Your task to perform on an android device: find which apps use the phone's location Image 0: 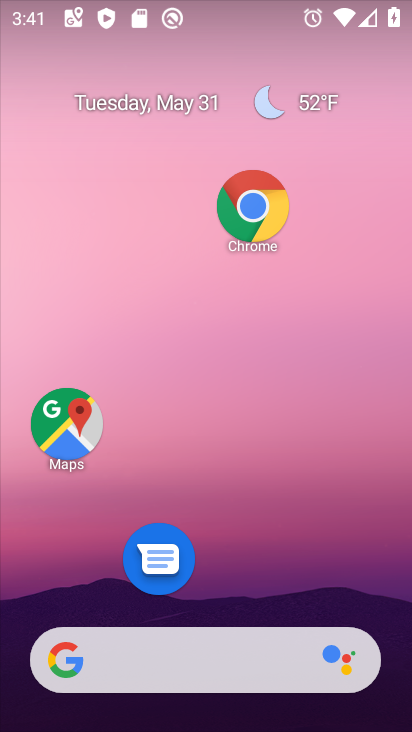
Step 0: drag from (227, 580) to (172, 83)
Your task to perform on an android device: find which apps use the phone's location Image 1: 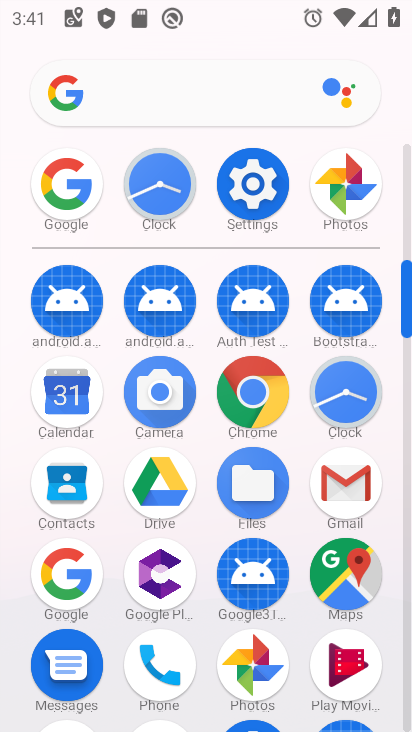
Step 1: click (247, 174)
Your task to perform on an android device: find which apps use the phone's location Image 2: 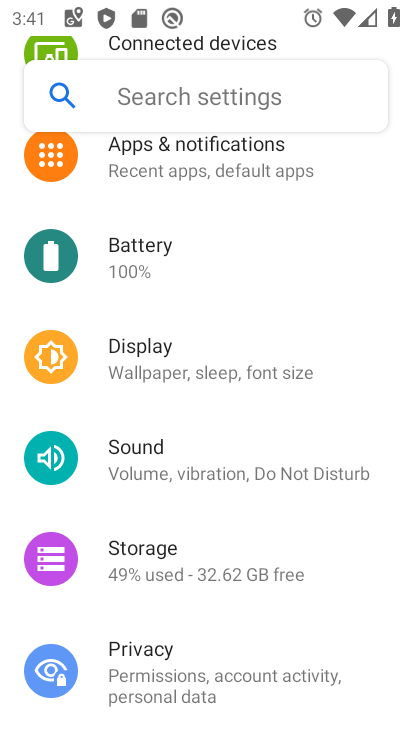
Step 2: drag from (197, 630) to (246, 281)
Your task to perform on an android device: find which apps use the phone's location Image 3: 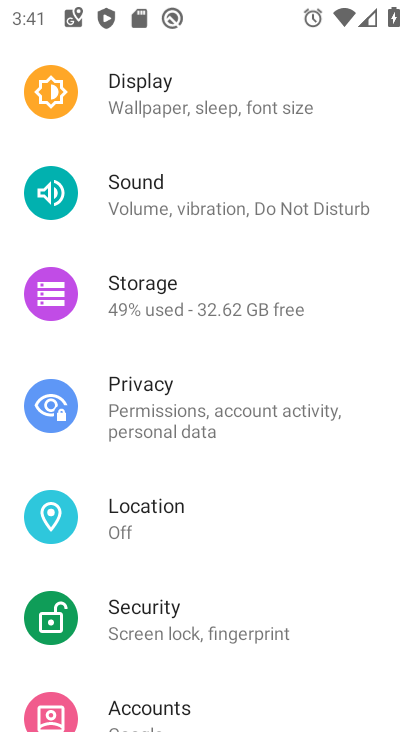
Step 3: click (198, 502)
Your task to perform on an android device: find which apps use the phone's location Image 4: 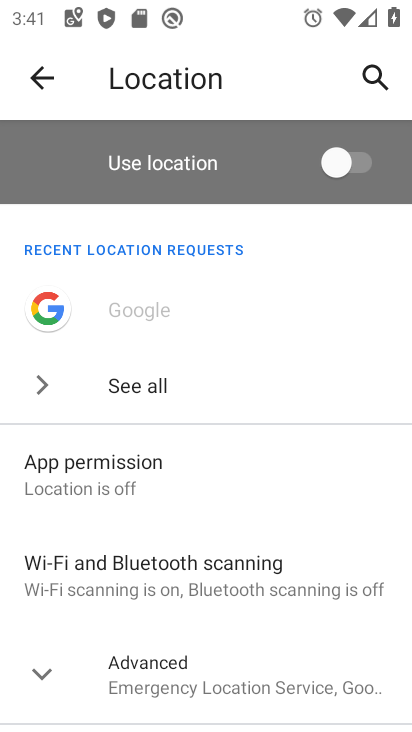
Step 4: drag from (191, 568) to (245, 320)
Your task to perform on an android device: find which apps use the phone's location Image 5: 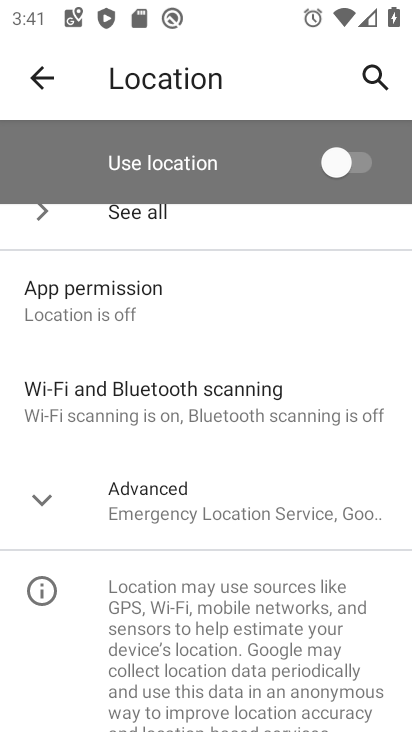
Step 5: click (169, 322)
Your task to perform on an android device: find which apps use the phone's location Image 6: 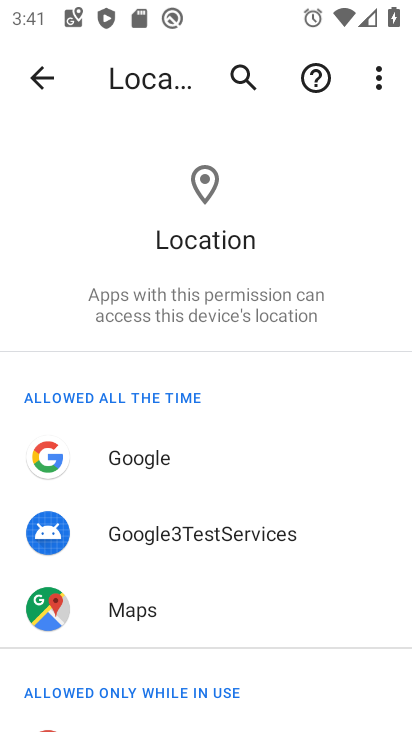
Step 6: task complete